Your task to perform on an android device: Open my contact list Image 0: 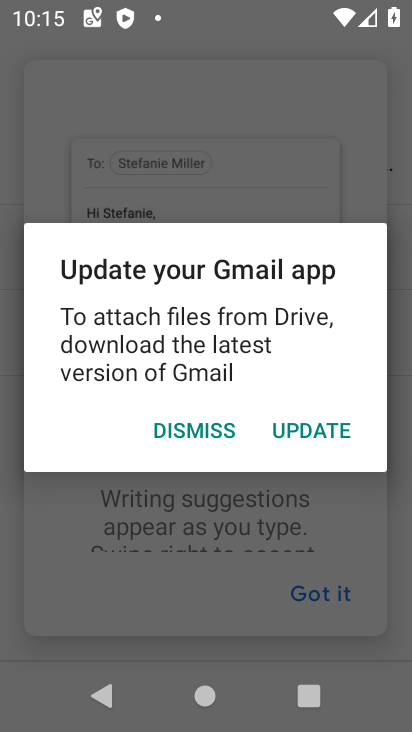
Step 0: press home button
Your task to perform on an android device: Open my contact list Image 1: 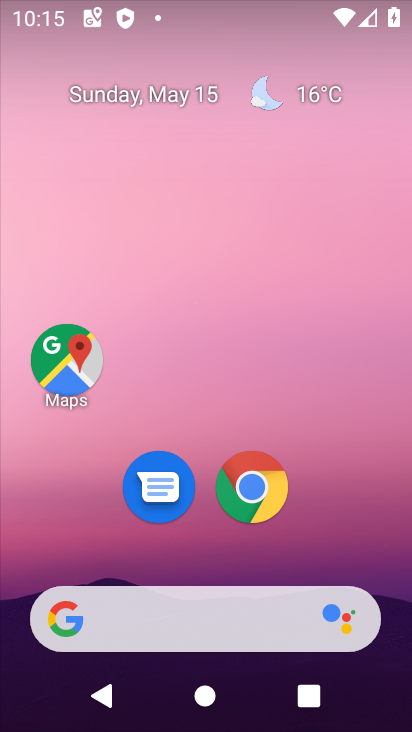
Step 1: drag from (397, 632) to (341, 139)
Your task to perform on an android device: Open my contact list Image 2: 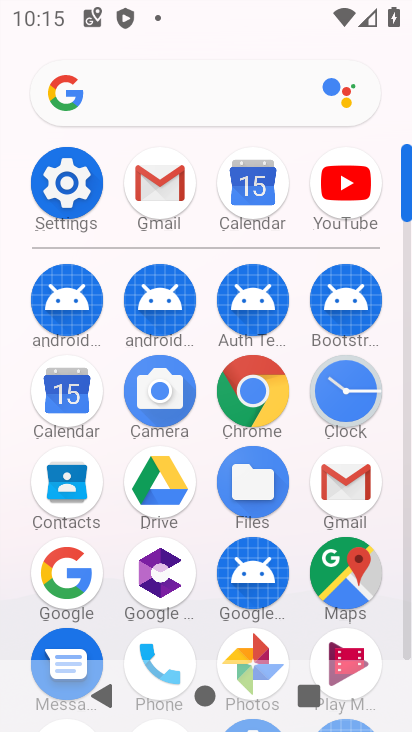
Step 2: click (407, 646)
Your task to perform on an android device: Open my contact list Image 3: 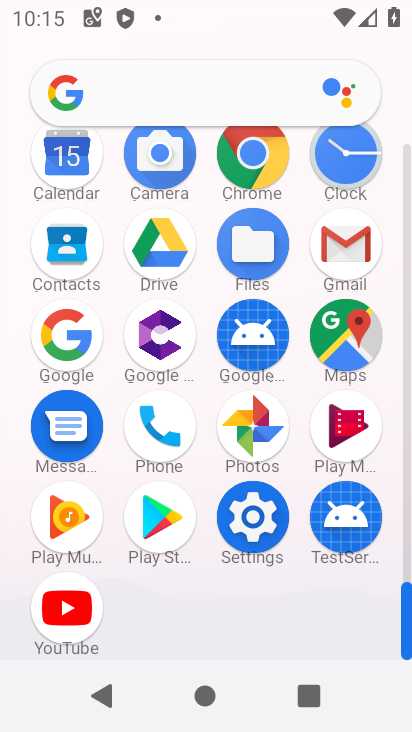
Step 3: click (66, 245)
Your task to perform on an android device: Open my contact list Image 4: 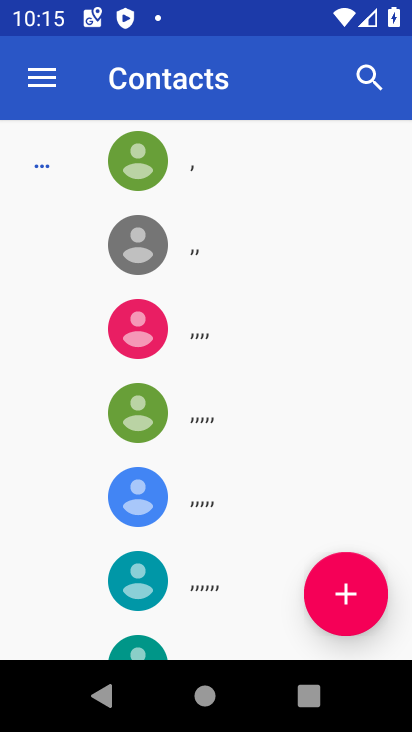
Step 4: task complete